Your task to perform on an android device: change alarm snooze length Image 0: 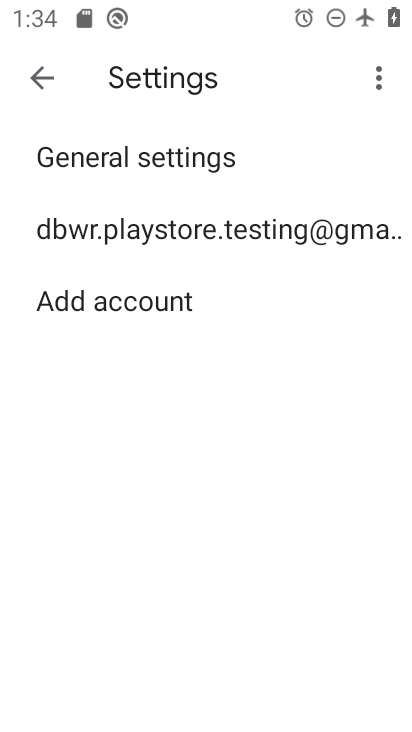
Step 0: press home button
Your task to perform on an android device: change alarm snooze length Image 1: 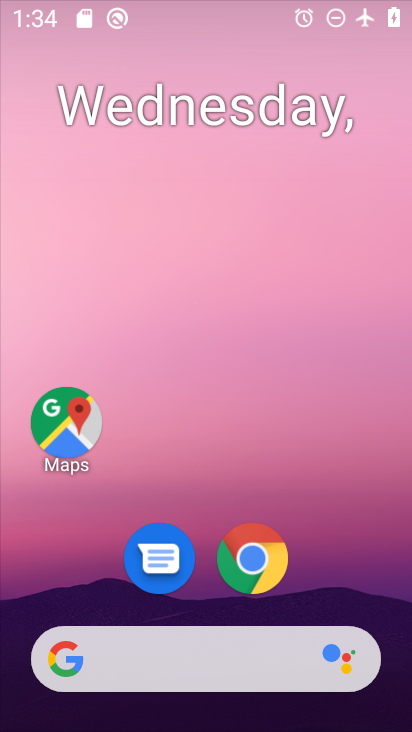
Step 1: drag from (396, 657) to (304, 24)
Your task to perform on an android device: change alarm snooze length Image 2: 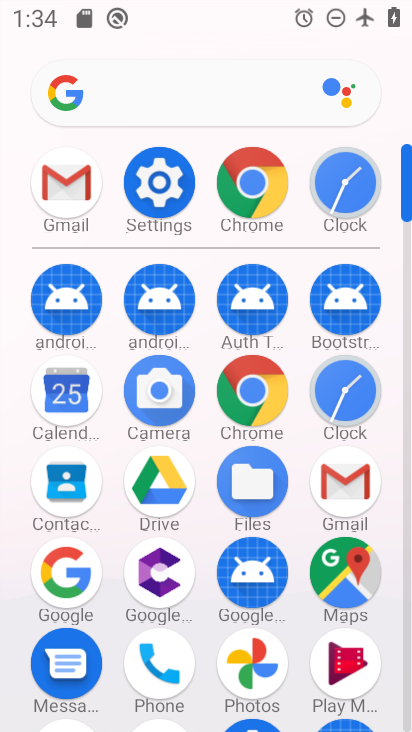
Step 2: click (335, 392)
Your task to perform on an android device: change alarm snooze length Image 3: 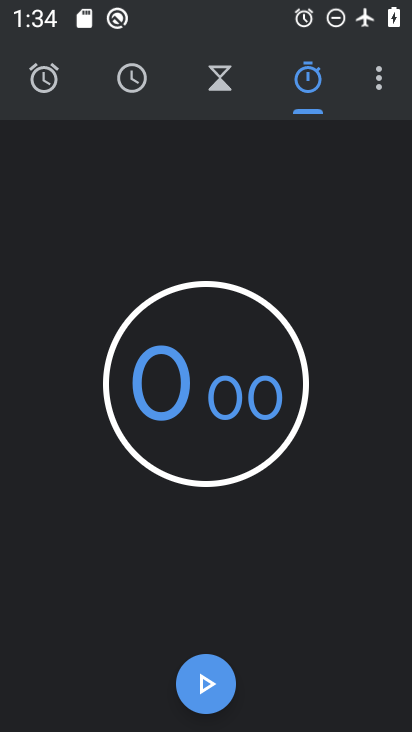
Step 3: click (376, 76)
Your task to perform on an android device: change alarm snooze length Image 4: 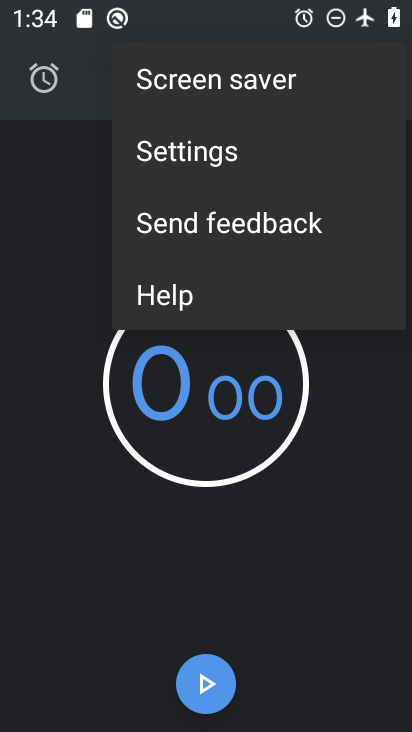
Step 4: click (232, 153)
Your task to perform on an android device: change alarm snooze length Image 5: 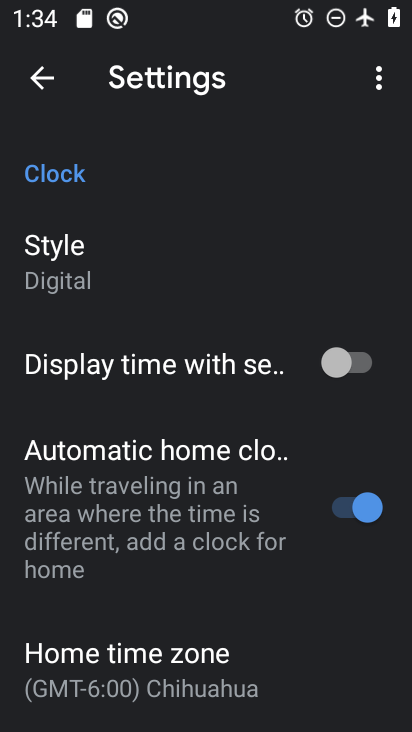
Step 5: drag from (186, 661) to (210, 175)
Your task to perform on an android device: change alarm snooze length Image 6: 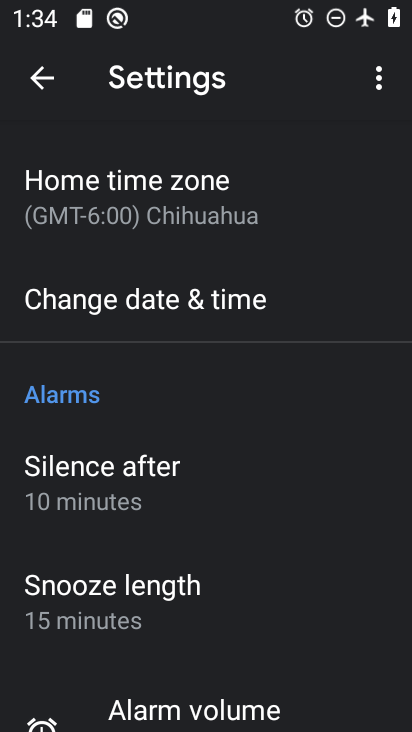
Step 6: click (195, 591)
Your task to perform on an android device: change alarm snooze length Image 7: 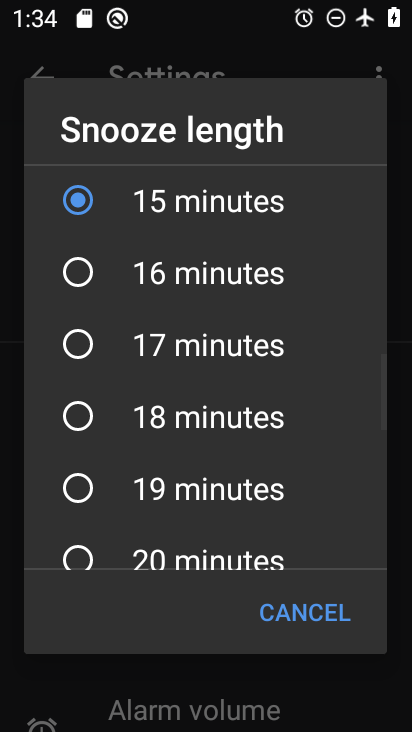
Step 7: click (84, 487)
Your task to perform on an android device: change alarm snooze length Image 8: 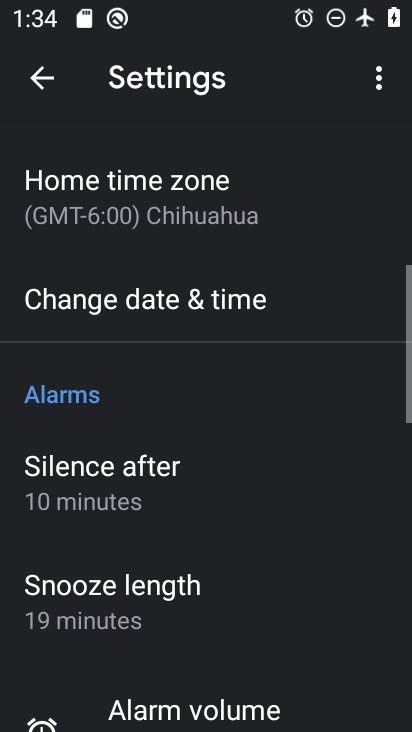
Step 8: task complete